Your task to perform on an android device: check google app version Image 0: 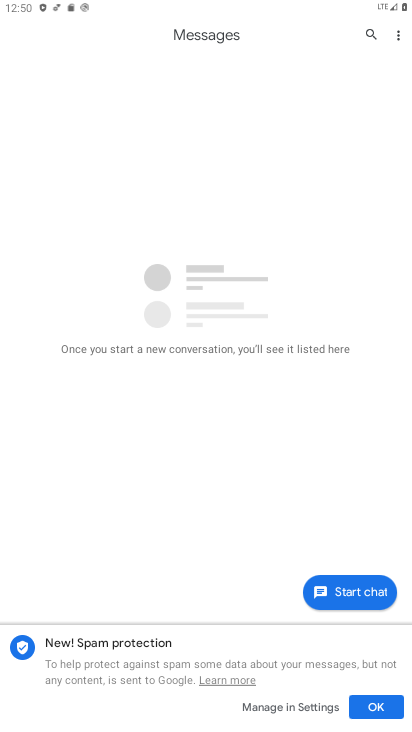
Step 0: press home button
Your task to perform on an android device: check google app version Image 1: 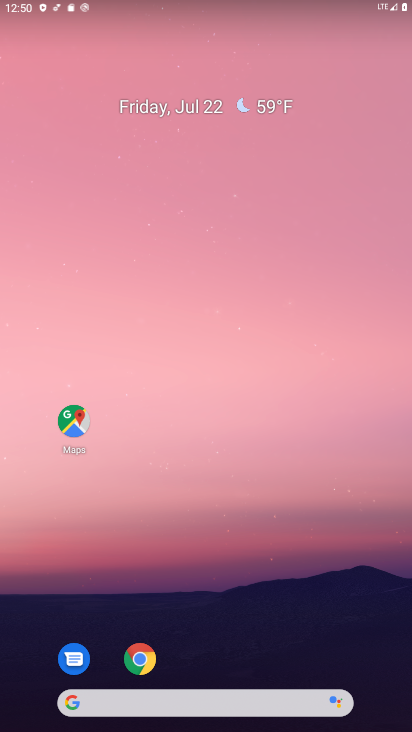
Step 1: drag from (208, 562) to (211, 238)
Your task to perform on an android device: check google app version Image 2: 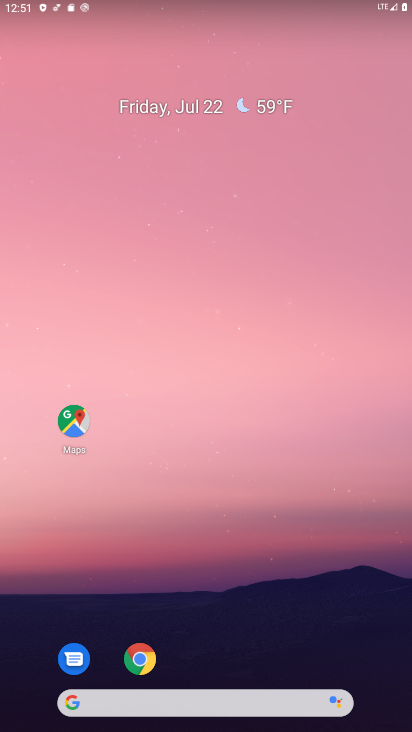
Step 2: drag from (204, 650) to (266, 143)
Your task to perform on an android device: check google app version Image 3: 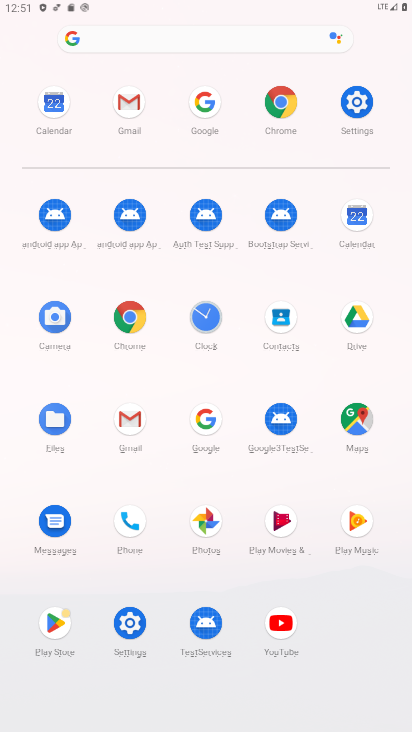
Step 3: click (205, 113)
Your task to perform on an android device: check google app version Image 4: 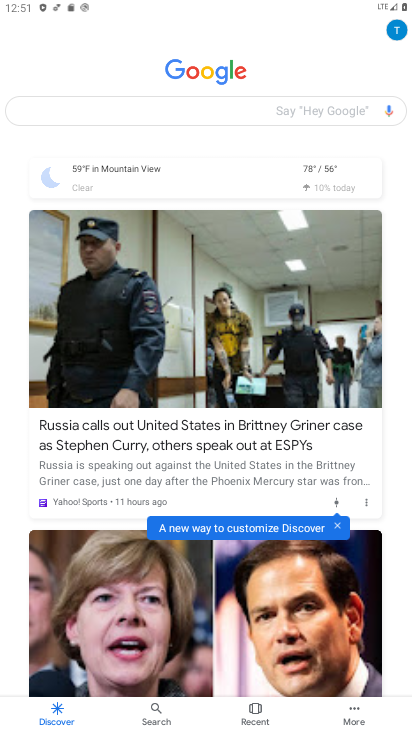
Step 4: click (397, 28)
Your task to perform on an android device: check google app version Image 5: 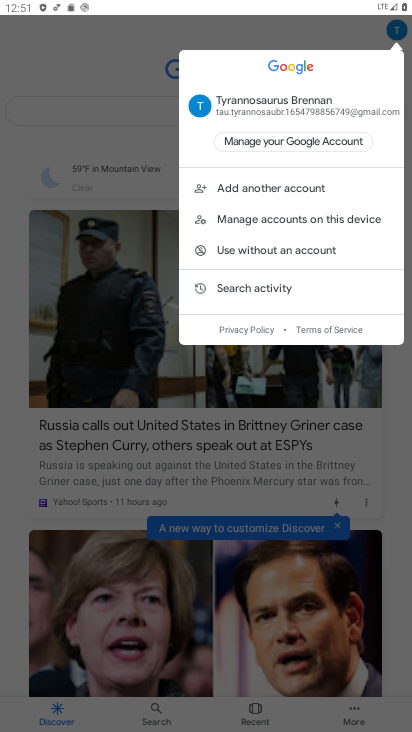
Step 5: click (353, 713)
Your task to perform on an android device: check google app version Image 6: 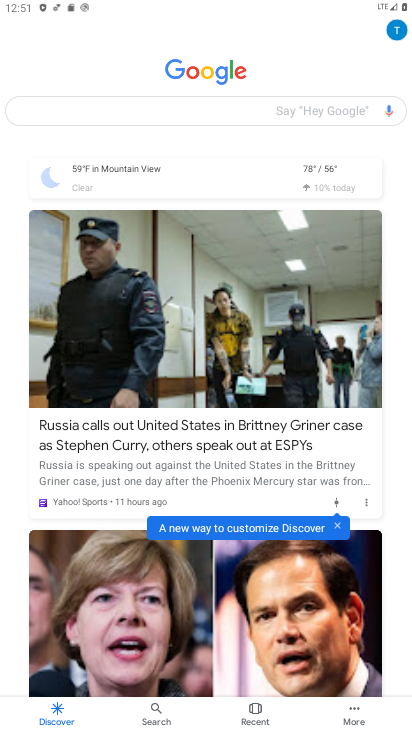
Step 6: click (353, 713)
Your task to perform on an android device: check google app version Image 7: 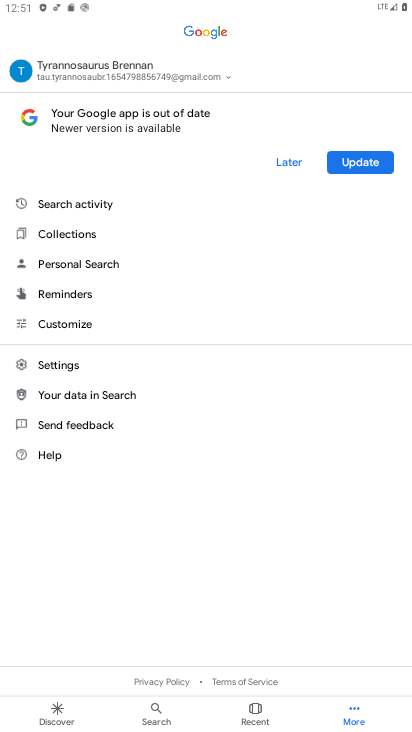
Step 7: click (46, 367)
Your task to perform on an android device: check google app version Image 8: 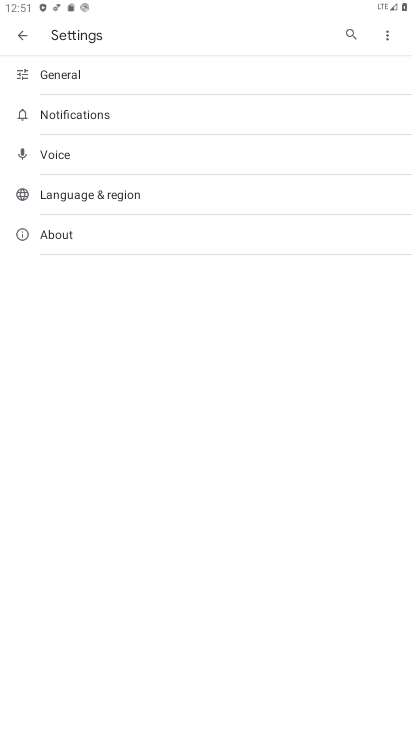
Step 8: click (50, 231)
Your task to perform on an android device: check google app version Image 9: 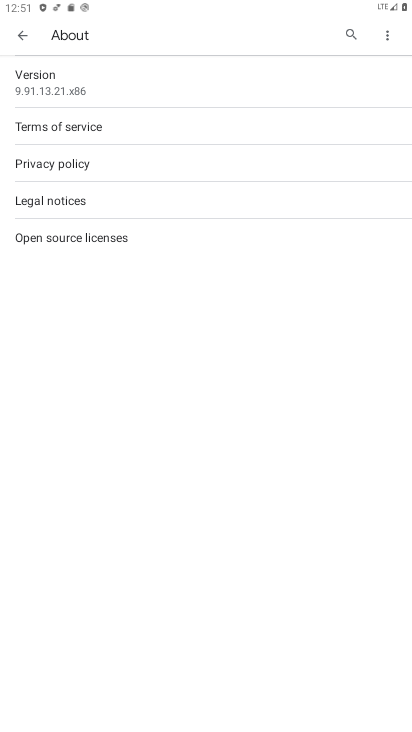
Step 9: click (51, 92)
Your task to perform on an android device: check google app version Image 10: 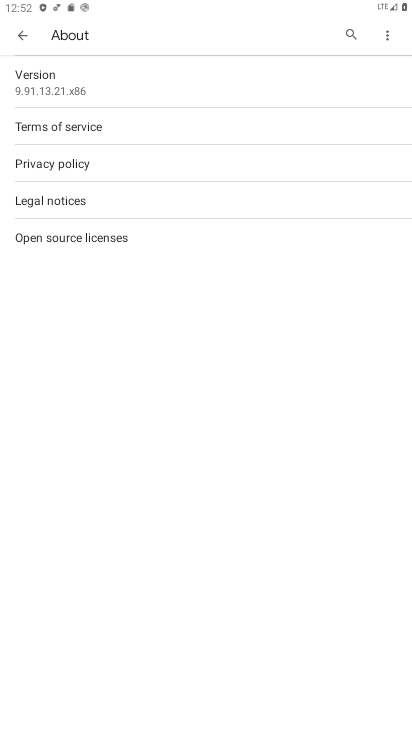
Step 10: task complete